Your task to perform on an android device: Open settings Image 0: 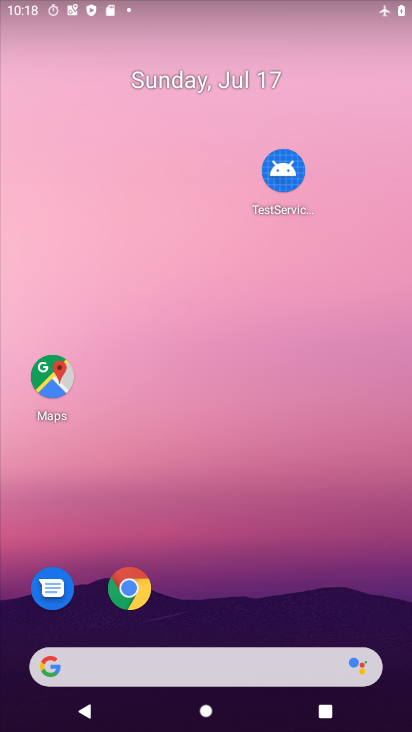
Step 0: drag from (155, 646) to (319, 30)
Your task to perform on an android device: Open settings Image 1: 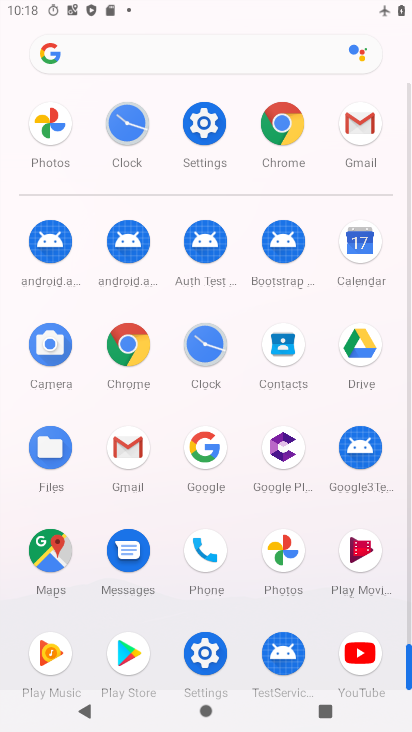
Step 1: click (200, 145)
Your task to perform on an android device: Open settings Image 2: 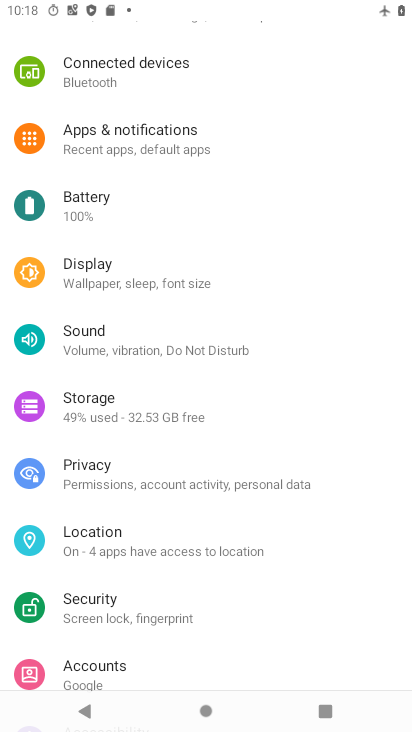
Step 2: task complete